Your task to perform on an android device: open app "eBay: The shopping marketplace" (install if not already installed) and go to login screen Image 0: 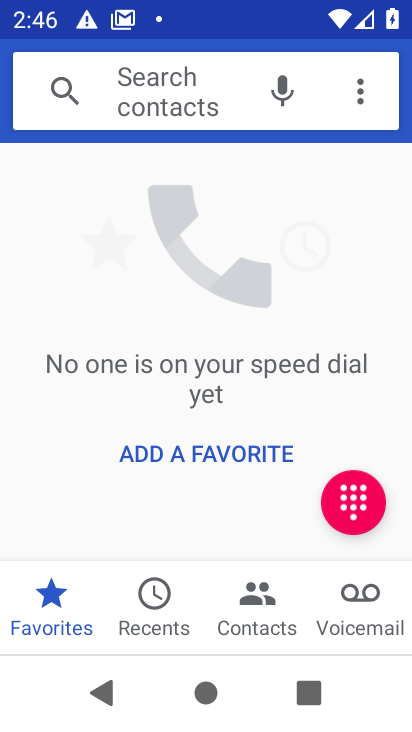
Step 0: press home button
Your task to perform on an android device: open app "eBay: The shopping marketplace" (install if not already installed) and go to login screen Image 1: 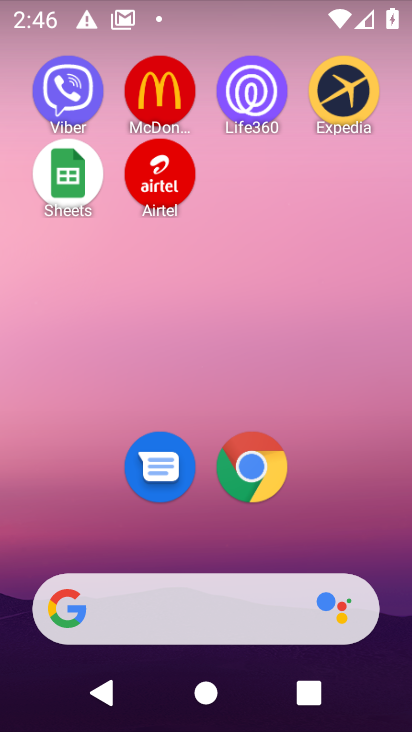
Step 1: drag from (199, 529) to (198, 139)
Your task to perform on an android device: open app "eBay: The shopping marketplace" (install if not already installed) and go to login screen Image 2: 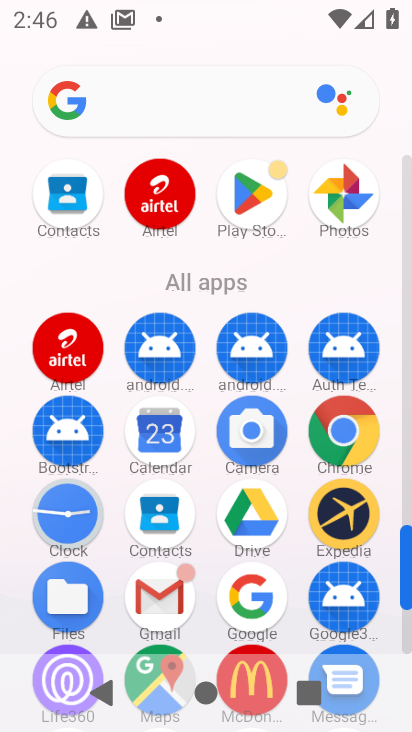
Step 2: click (264, 211)
Your task to perform on an android device: open app "eBay: The shopping marketplace" (install if not already installed) and go to login screen Image 3: 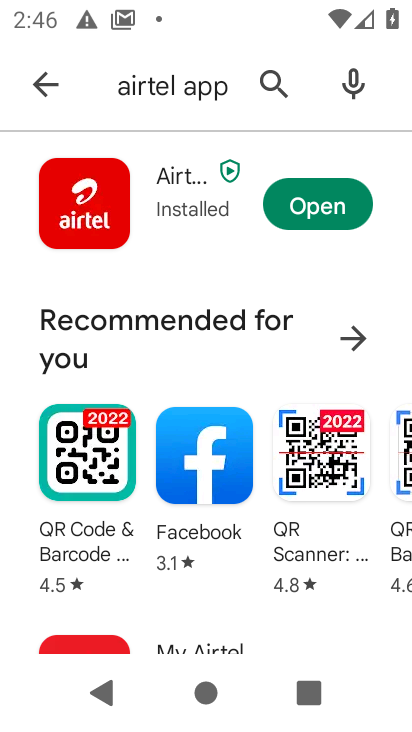
Step 3: click (284, 86)
Your task to perform on an android device: open app "eBay: The shopping marketplace" (install if not already installed) and go to login screen Image 4: 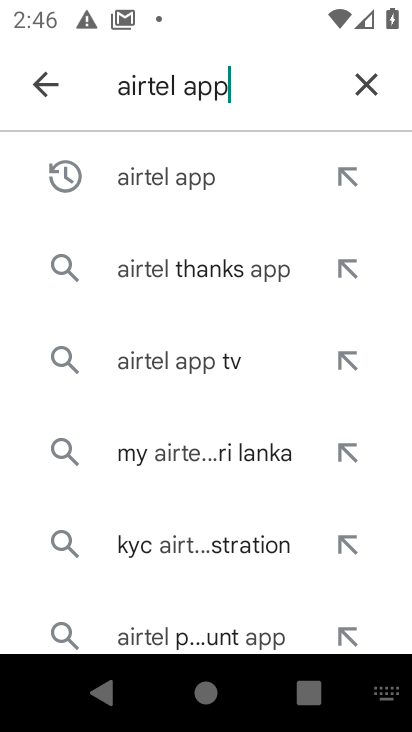
Step 4: click (355, 91)
Your task to perform on an android device: open app "eBay: The shopping marketplace" (install if not already installed) and go to login screen Image 5: 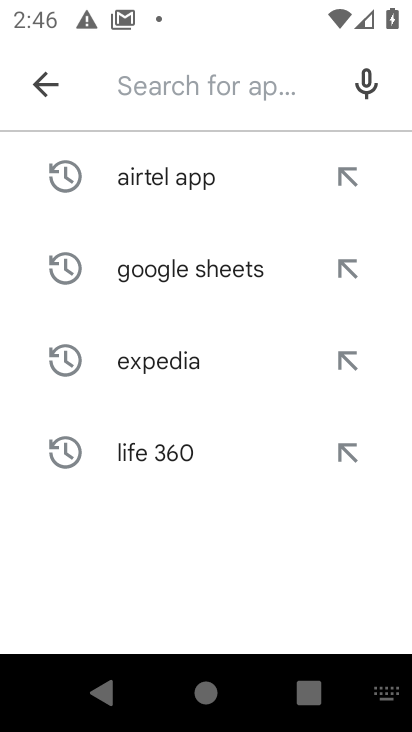
Step 5: type "ebay"
Your task to perform on an android device: open app "eBay: The shopping marketplace" (install if not already installed) and go to login screen Image 6: 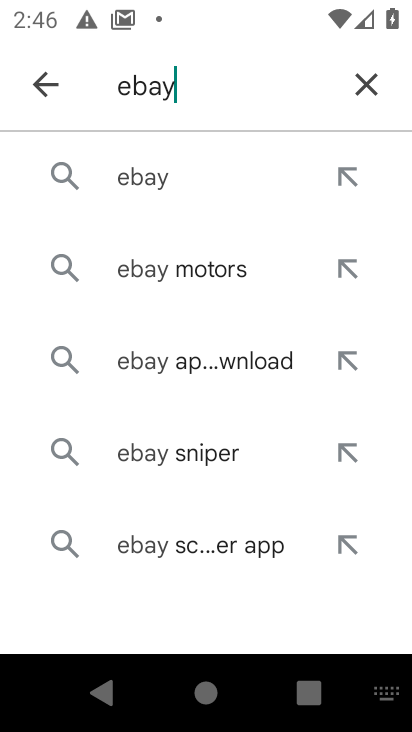
Step 6: click (224, 174)
Your task to perform on an android device: open app "eBay: The shopping marketplace" (install if not already installed) and go to login screen Image 7: 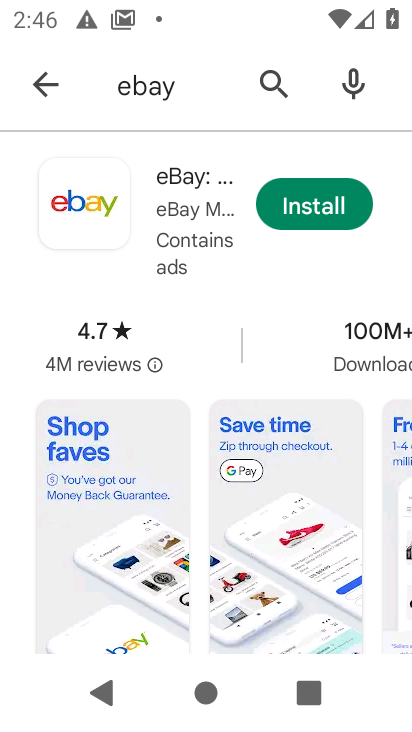
Step 7: click (308, 206)
Your task to perform on an android device: open app "eBay: The shopping marketplace" (install if not already installed) and go to login screen Image 8: 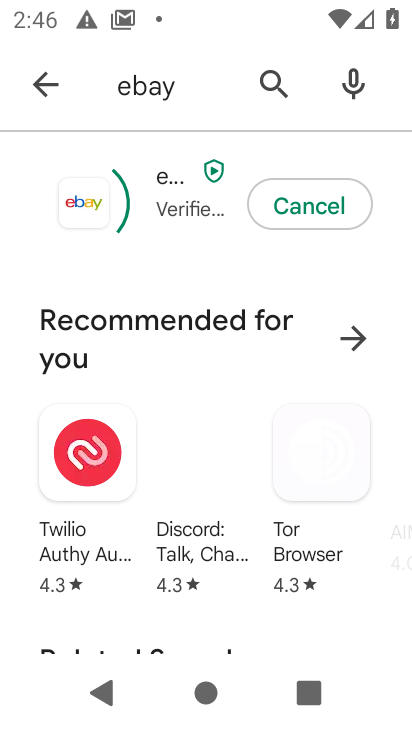
Step 8: task complete